Your task to perform on an android device: toggle show notifications on the lock screen Image 0: 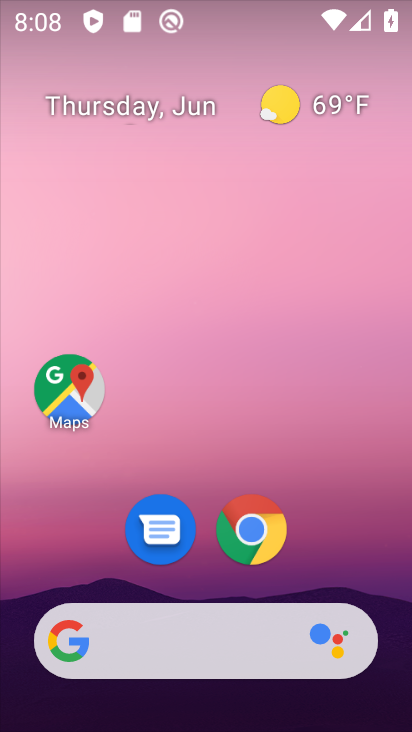
Step 0: drag from (197, 584) to (135, 65)
Your task to perform on an android device: toggle show notifications on the lock screen Image 1: 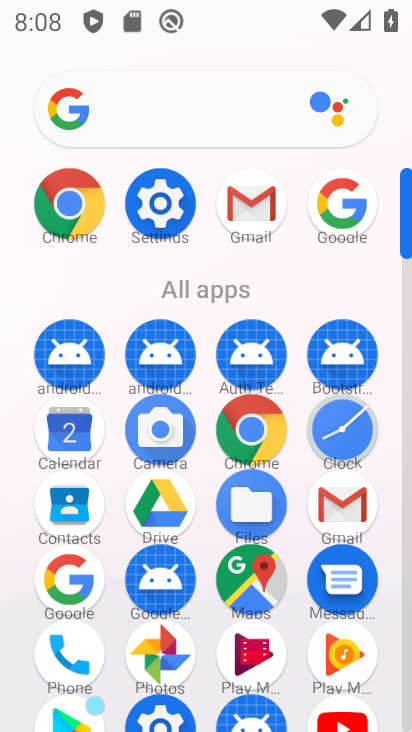
Step 1: click (151, 225)
Your task to perform on an android device: toggle show notifications on the lock screen Image 2: 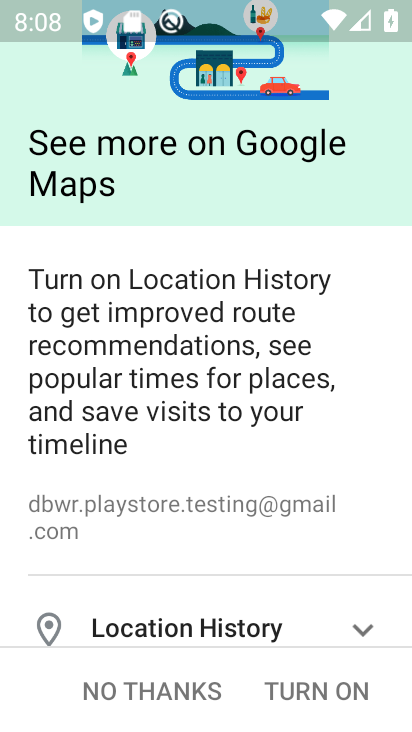
Step 2: press back button
Your task to perform on an android device: toggle show notifications on the lock screen Image 3: 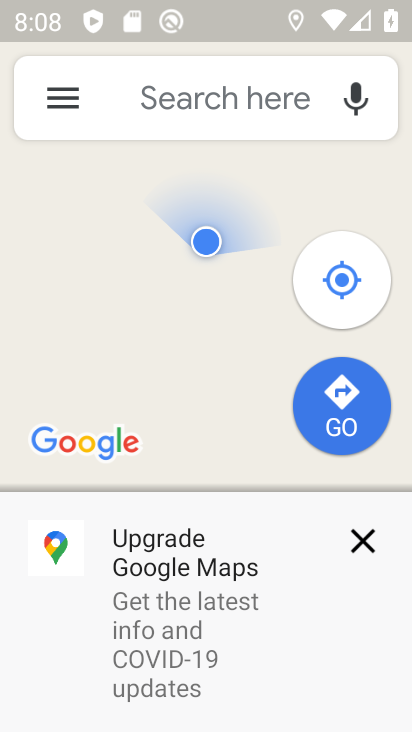
Step 3: press back button
Your task to perform on an android device: toggle show notifications on the lock screen Image 4: 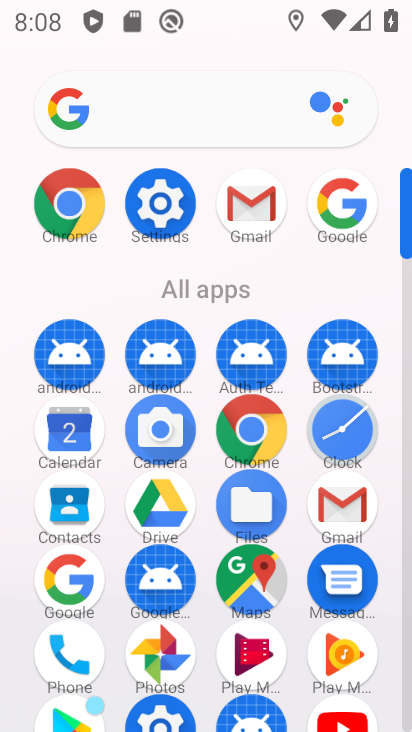
Step 4: click (137, 224)
Your task to perform on an android device: toggle show notifications on the lock screen Image 5: 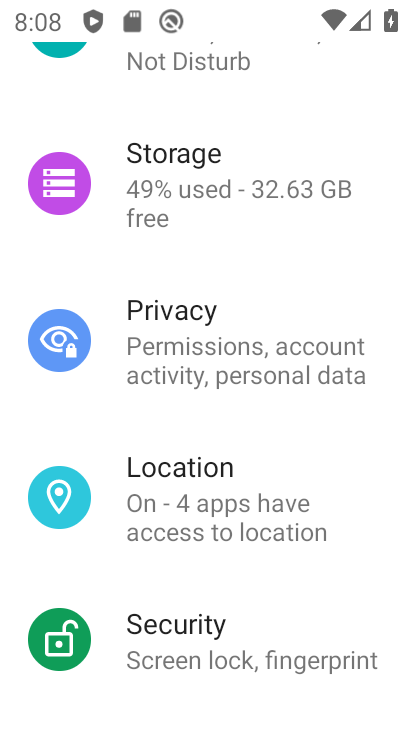
Step 5: drag from (161, 218) to (158, 572)
Your task to perform on an android device: toggle show notifications on the lock screen Image 6: 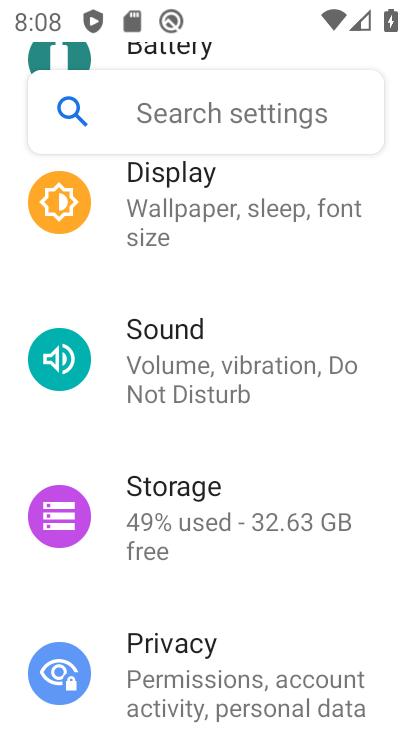
Step 6: drag from (184, 246) to (149, 572)
Your task to perform on an android device: toggle show notifications on the lock screen Image 7: 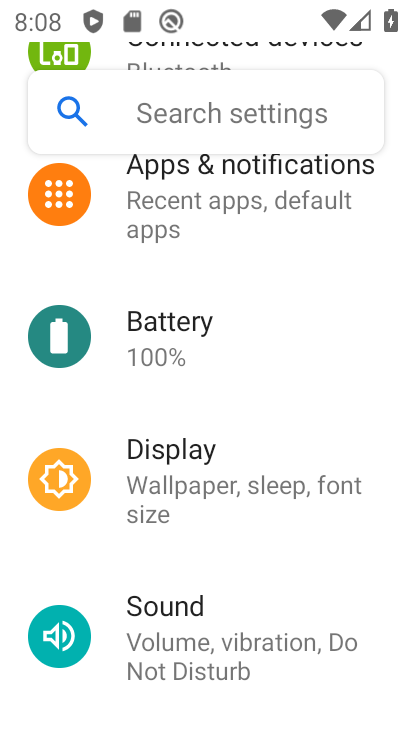
Step 7: click (168, 193)
Your task to perform on an android device: toggle show notifications on the lock screen Image 8: 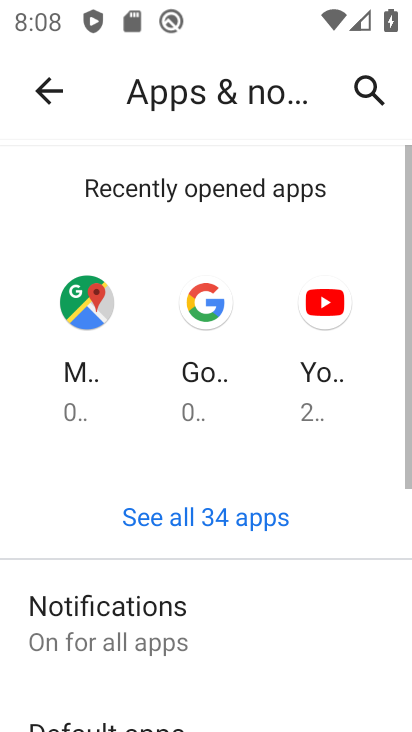
Step 8: drag from (246, 608) to (206, 184)
Your task to perform on an android device: toggle show notifications on the lock screen Image 9: 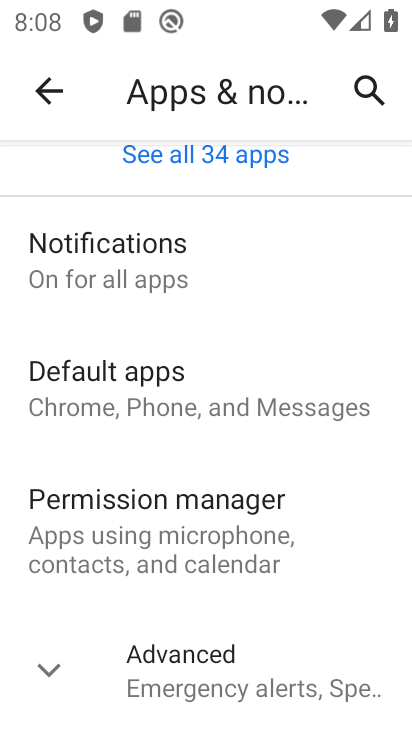
Step 9: click (99, 233)
Your task to perform on an android device: toggle show notifications on the lock screen Image 10: 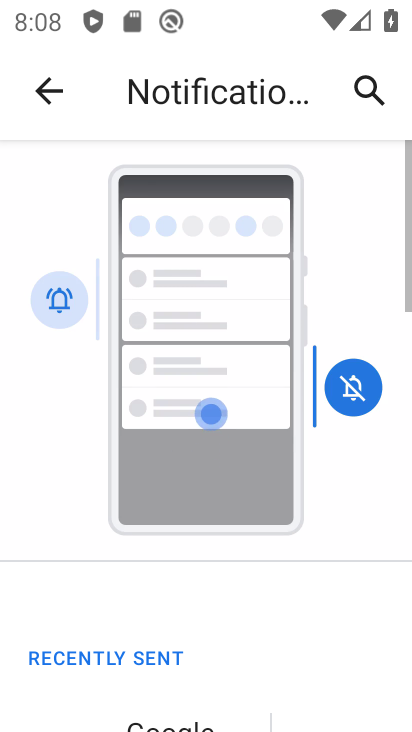
Step 10: drag from (219, 557) to (180, 16)
Your task to perform on an android device: toggle show notifications on the lock screen Image 11: 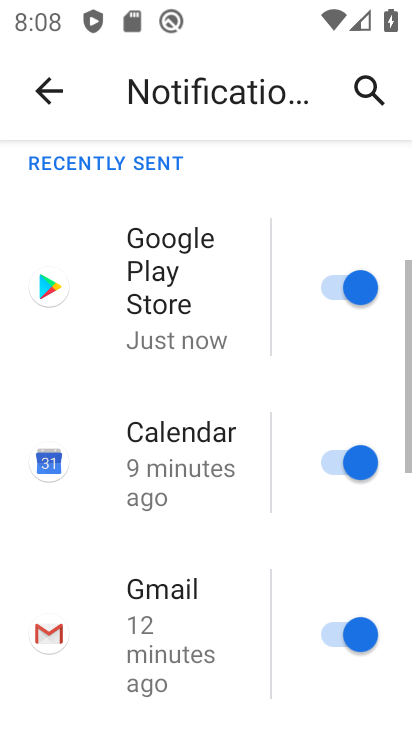
Step 11: drag from (241, 548) to (211, 112)
Your task to perform on an android device: toggle show notifications on the lock screen Image 12: 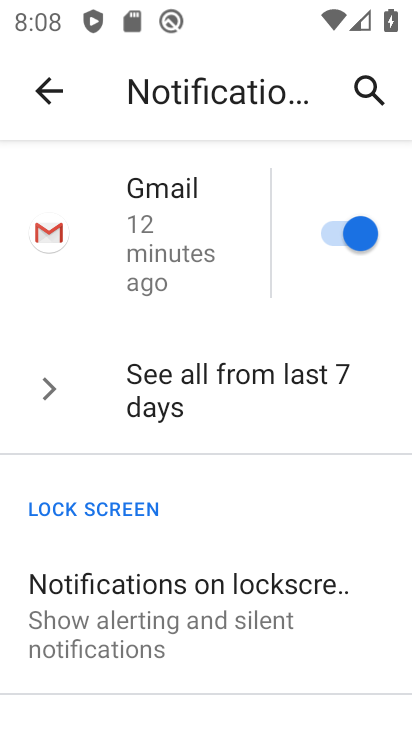
Step 12: click (253, 605)
Your task to perform on an android device: toggle show notifications on the lock screen Image 13: 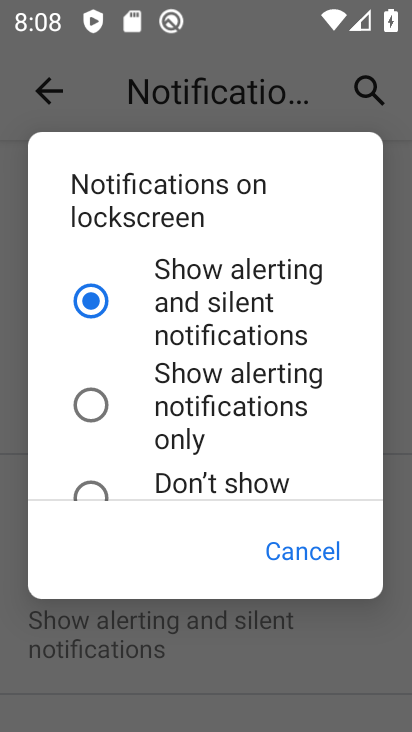
Step 13: click (205, 406)
Your task to perform on an android device: toggle show notifications on the lock screen Image 14: 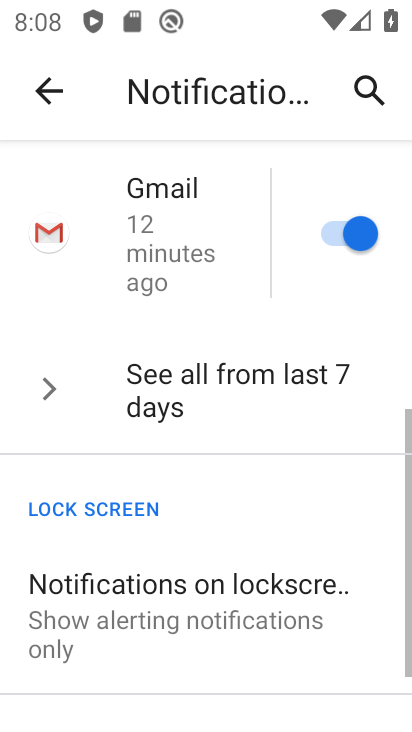
Step 14: task complete